Your task to perform on an android device: Show me the alarms in the clock app Image 0: 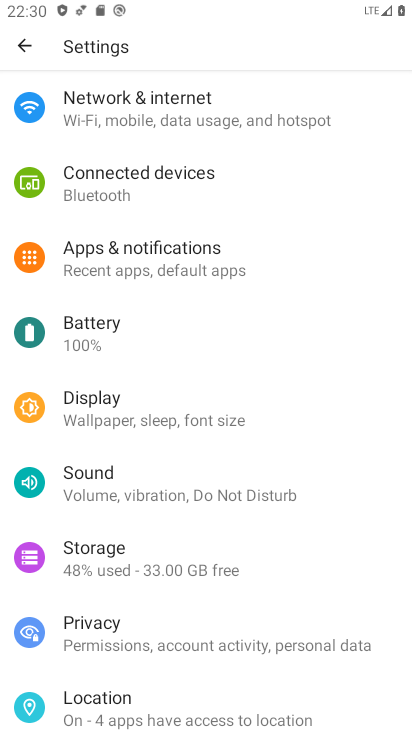
Step 0: press back button
Your task to perform on an android device: Show me the alarms in the clock app Image 1: 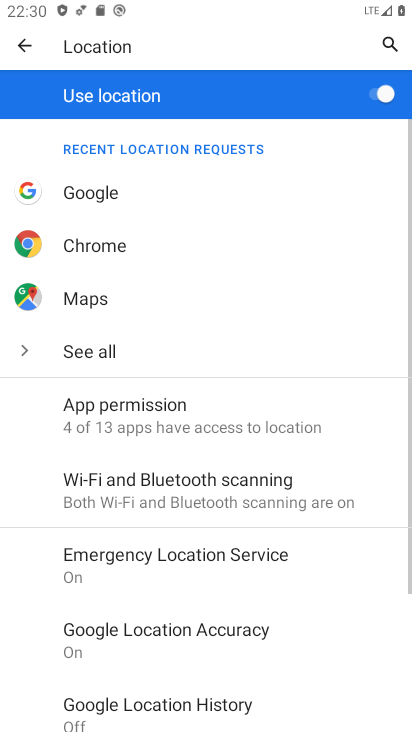
Step 1: click (15, 33)
Your task to perform on an android device: Show me the alarms in the clock app Image 2: 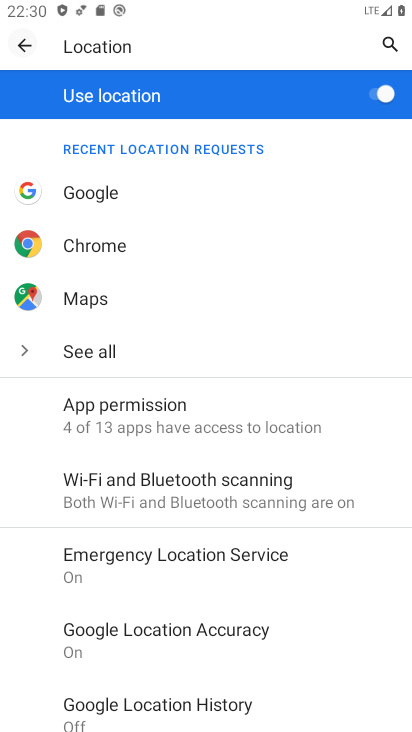
Step 2: click (16, 32)
Your task to perform on an android device: Show me the alarms in the clock app Image 3: 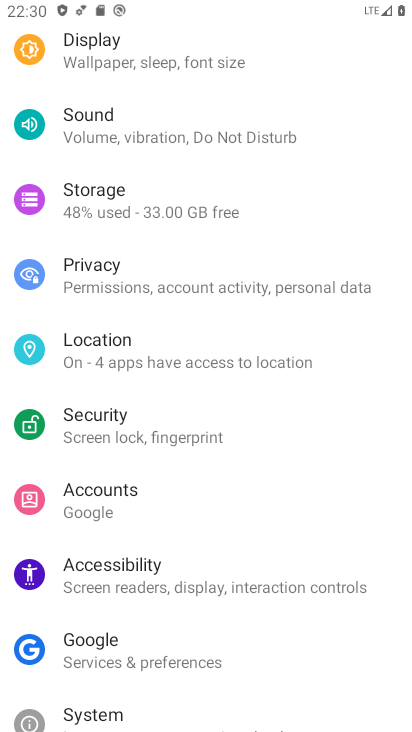
Step 3: press back button
Your task to perform on an android device: Show me the alarms in the clock app Image 4: 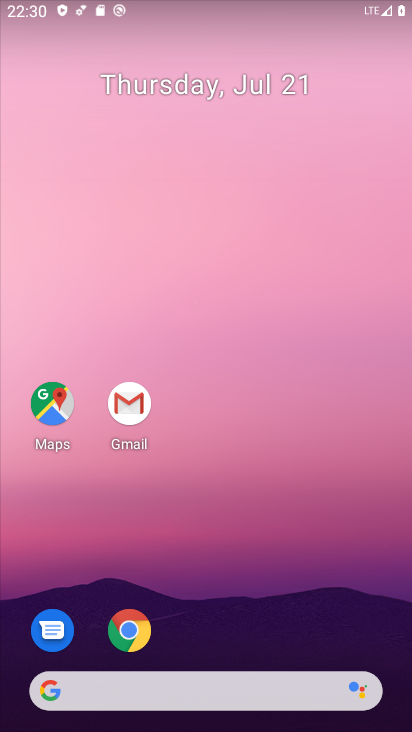
Step 4: drag from (223, 645) to (180, 199)
Your task to perform on an android device: Show me the alarms in the clock app Image 5: 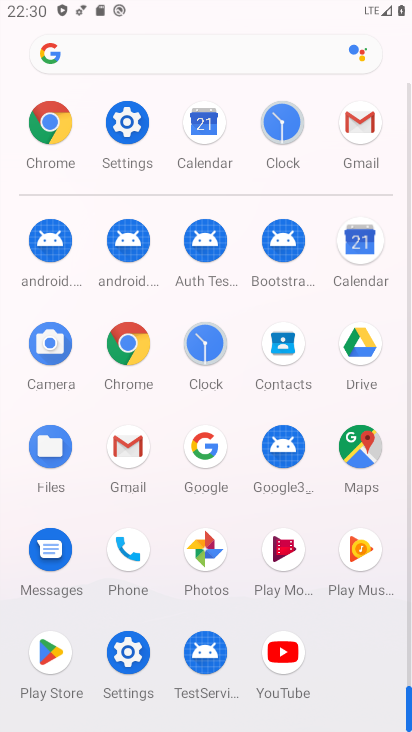
Step 5: click (209, 345)
Your task to perform on an android device: Show me the alarms in the clock app Image 6: 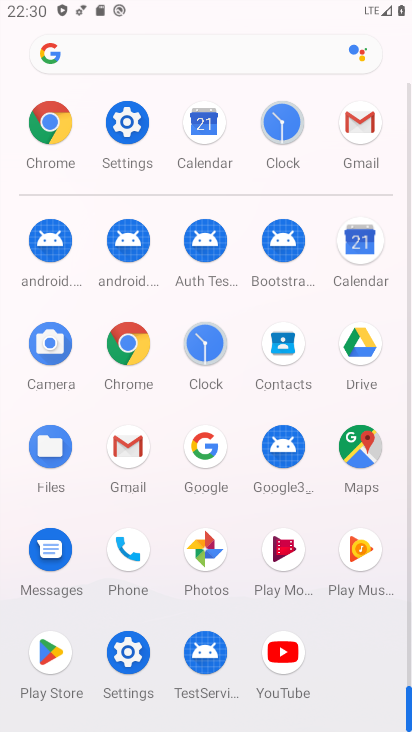
Step 6: click (212, 341)
Your task to perform on an android device: Show me the alarms in the clock app Image 7: 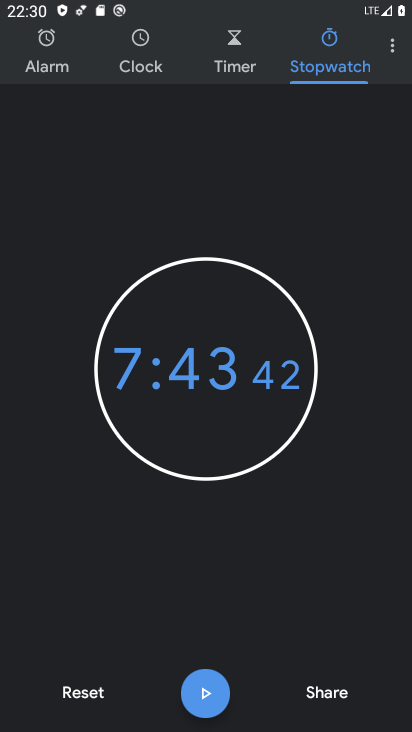
Step 7: click (54, 72)
Your task to perform on an android device: Show me the alarms in the clock app Image 8: 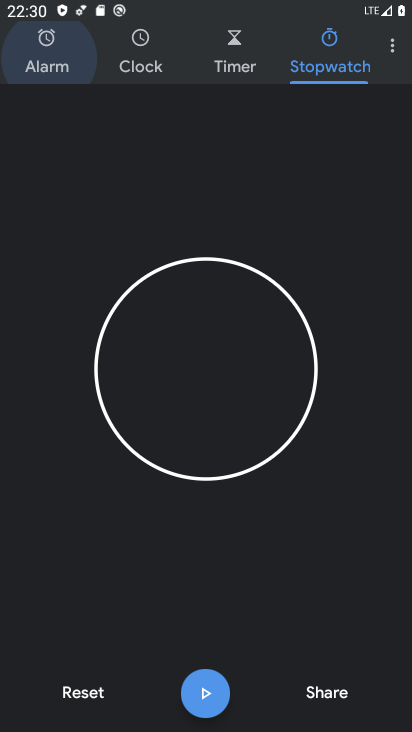
Step 8: click (54, 70)
Your task to perform on an android device: Show me the alarms in the clock app Image 9: 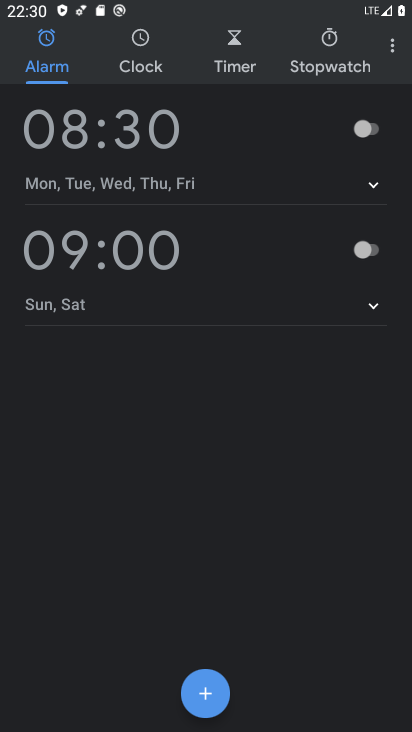
Step 9: click (350, 123)
Your task to perform on an android device: Show me the alarms in the clock app Image 10: 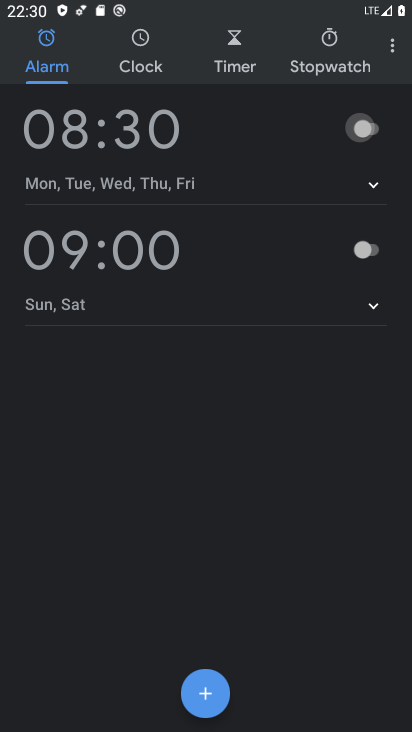
Step 10: click (355, 119)
Your task to perform on an android device: Show me the alarms in the clock app Image 11: 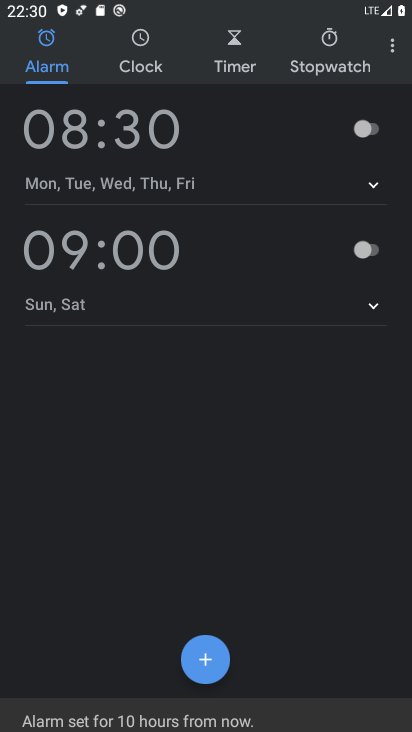
Step 11: click (363, 130)
Your task to perform on an android device: Show me the alarms in the clock app Image 12: 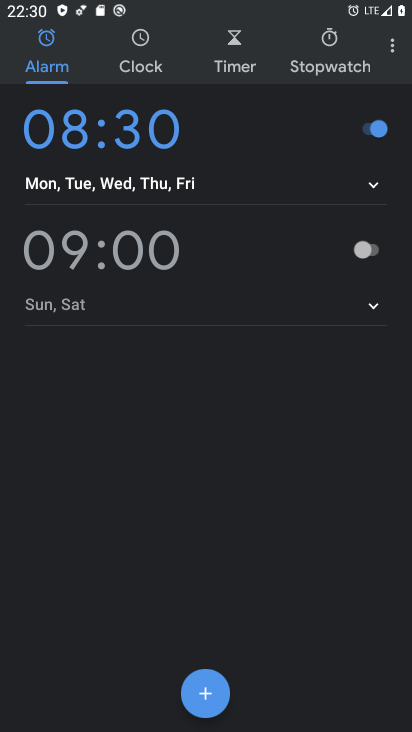
Step 12: task complete